Your task to perform on an android device: add a contact in the contacts app Image 0: 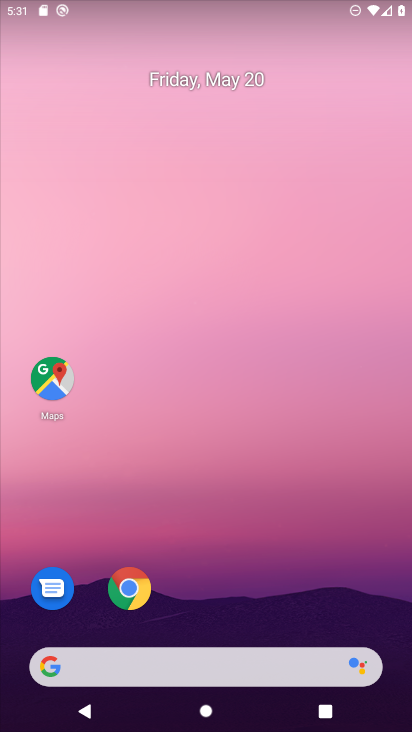
Step 0: drag from (229, 594) to (228, 196)
Your task to perform on an android device: add a contact in the contacts app Image 1: 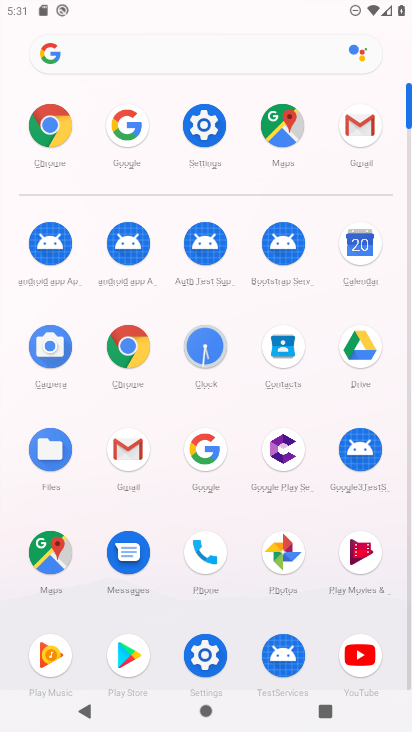
Step 1: click (282, 360)
Your task to perform on an android device: add a contact in the contacts app Image 2: 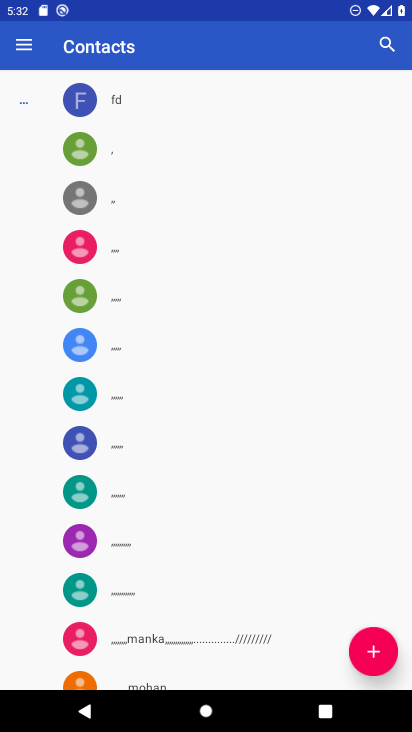
Step 2: click (372, 659)
Your task to perform on an android device: add a contact in the contacts app Image 3: 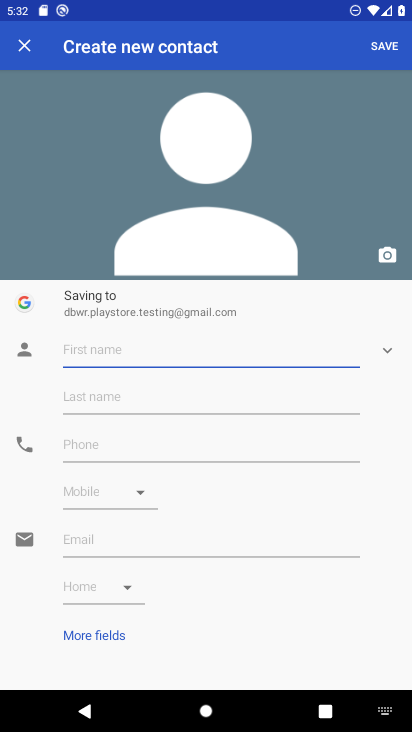
Step 3: click (169, 338)
Your task to perform on an android device: add a contact in the contacts app Image 4: 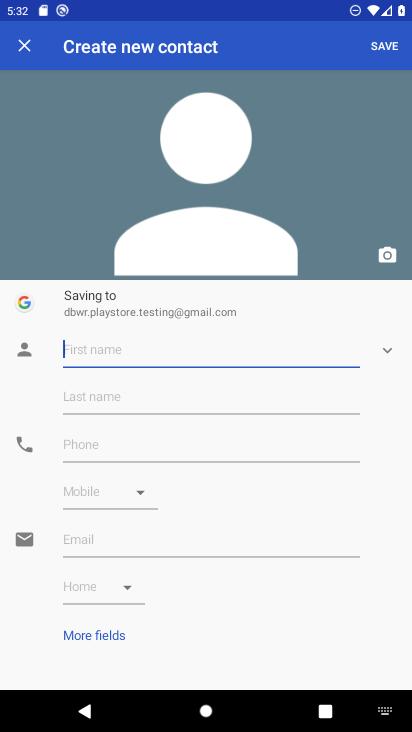
Step 4: type "kaka"
Your task to perform on an android device: add a contact in the contacts app Image 5: 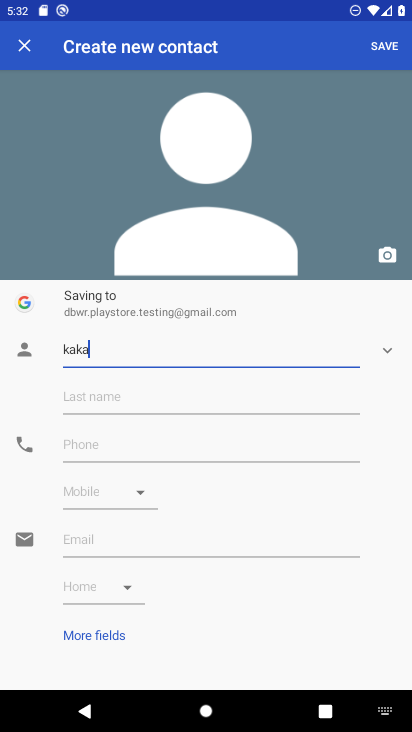
Step 5: click (178, 397)
Your task to perform on an android device: add a contact in the contacts app Image 6: 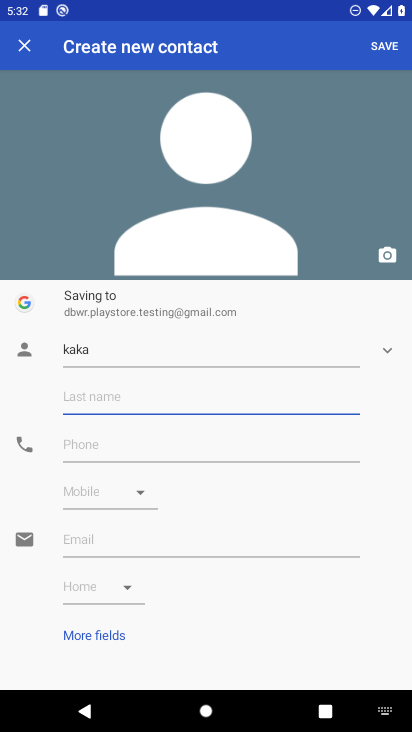
Step 6: click (120, 447)
Your task to perform on an android device: add a contact in the contacts app Image 7: 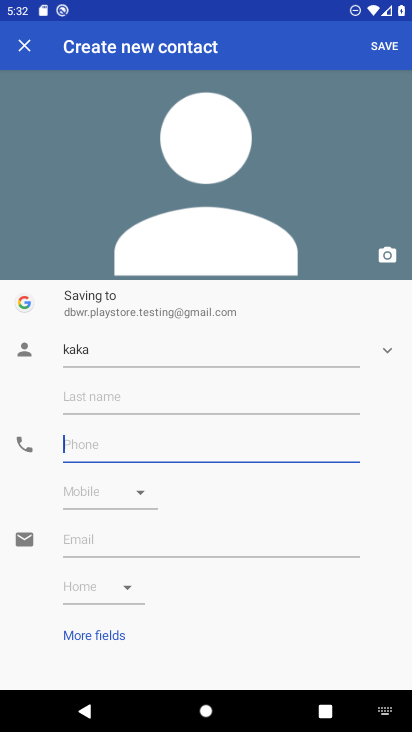
Step 7: type "6767767667"
Your task to perform on an android device: add a contact in the contacts app Image 8: 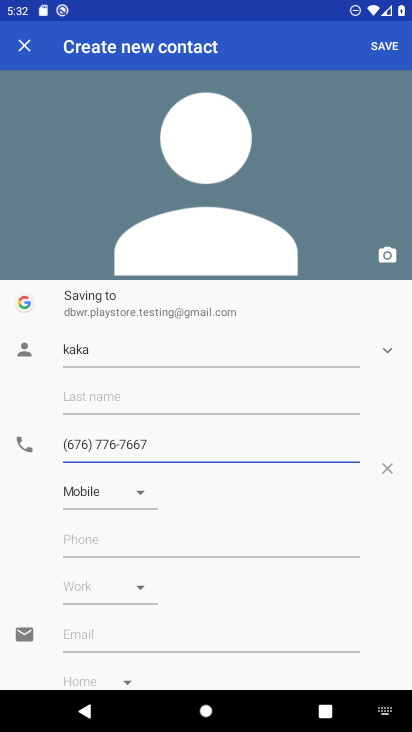
Step 8: task complete